Your task to perform on an android device: Open internet settings Image 0: 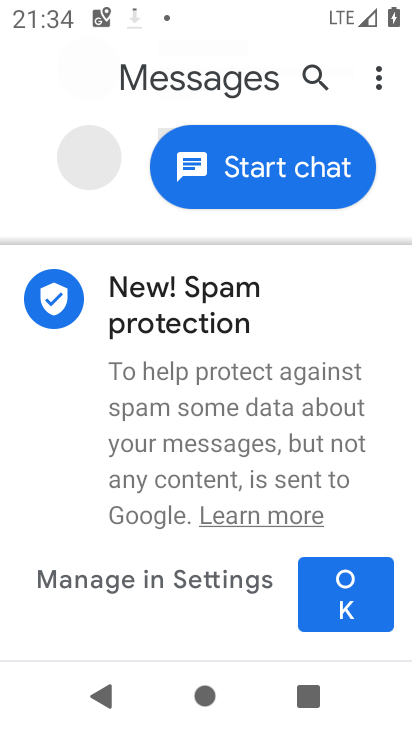
Step 0: press back button
Your task to perform on an android device: Open internet settings Image 1: 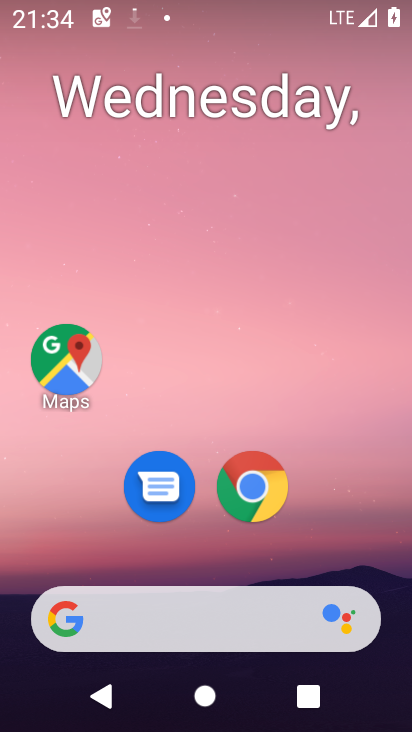
Step 1: drag from (177, 576) to (305, 0)
Your task to perform on an android device: Open internet settings Image 2: 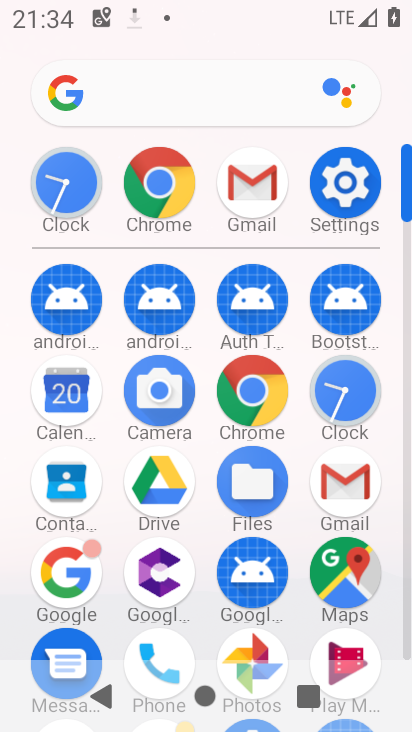
Step 2: click (348, 183)
Your task to perform on an android device: Open internet settings Image 3: 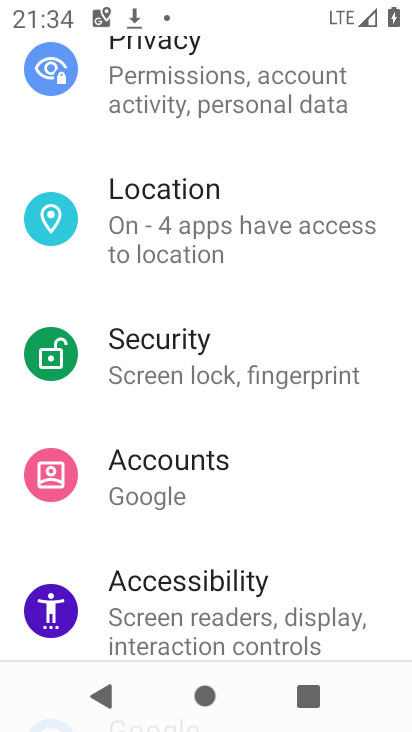
Step 3: drag from (185, 183) to (268, 651)
Your task to perform on an android device: Open internet settings Image 4: 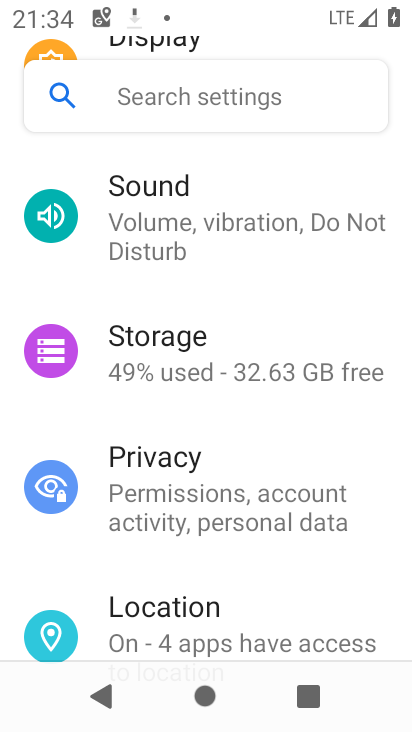
Step 4: drag from (212, 193) to (211, 726)
Your task to perform on an android device: Open internet settings Image 5: 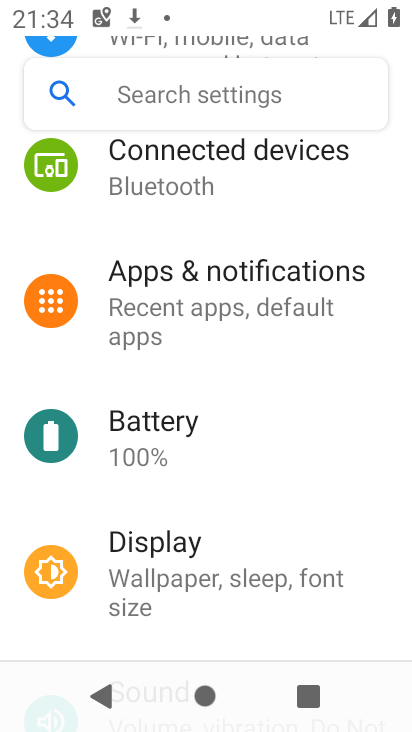
Step 5: drag from (240, 321) to (245, 709)
Your task to perform on an android device: Open internet settings Image 6: 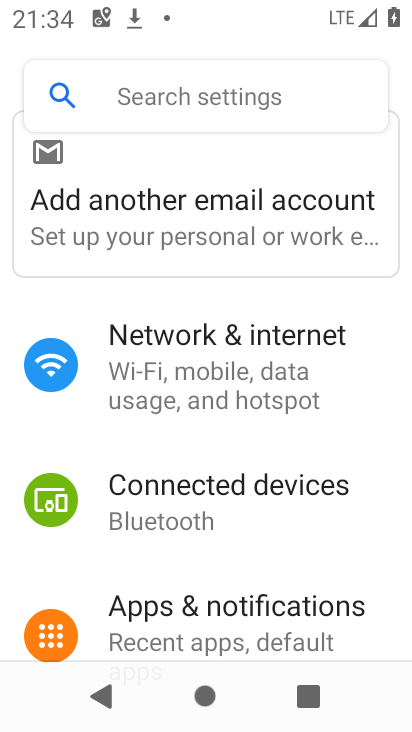
Step 6: click (201, 367)
Your task to perform on an android device: Open internet settings Image 7: 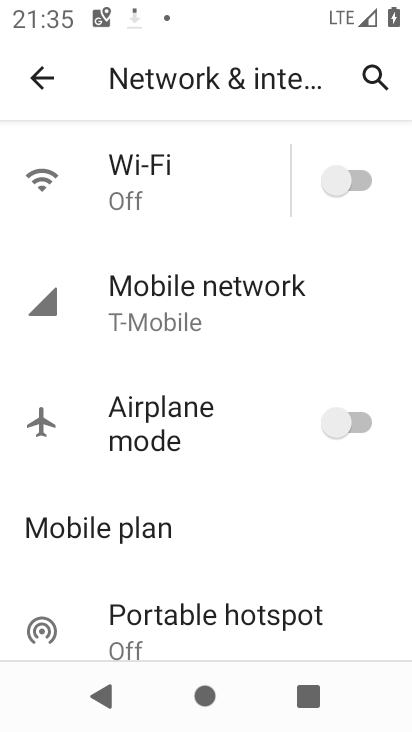
Step 7: task complete